Your task to perform on an android device: open app "eBay: The shopping marketplace" (install if not already installed) Image 0: 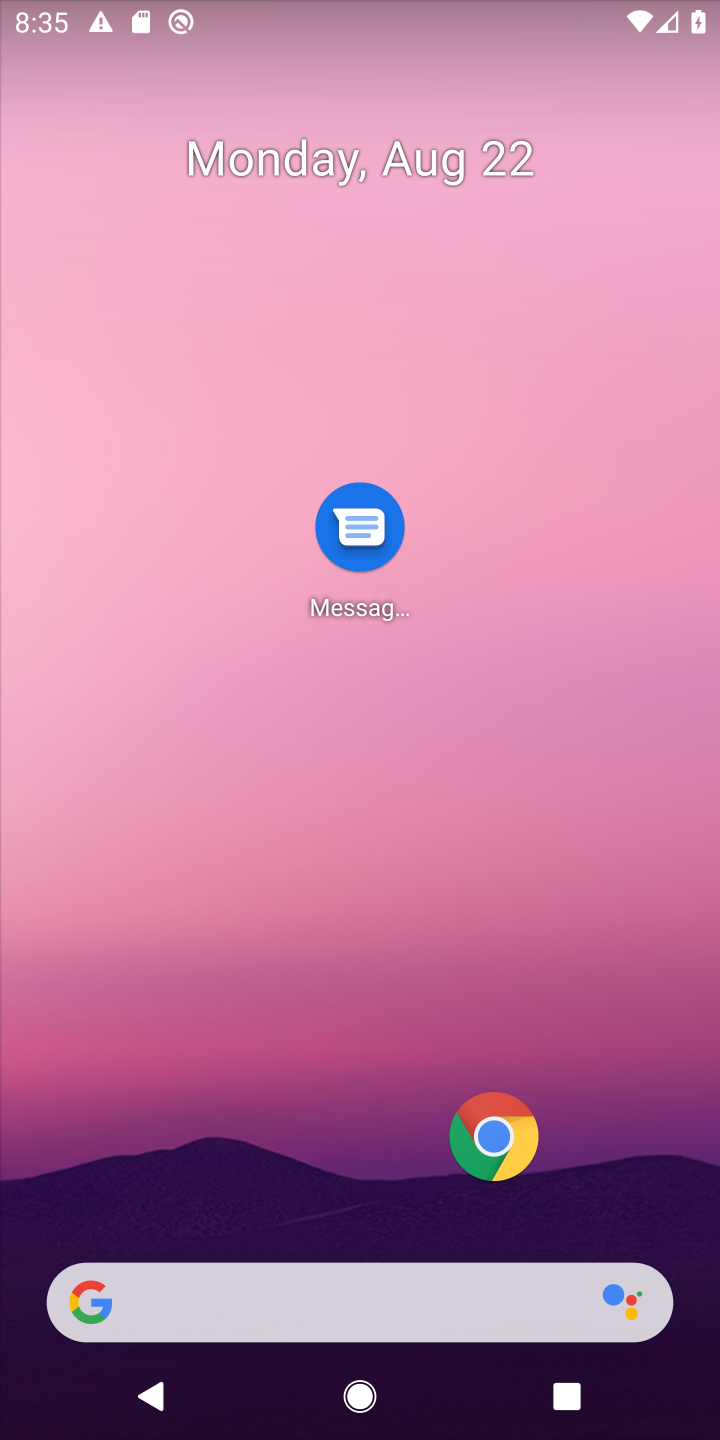
Step 0: drag from (380, 1147) to (365, 348)
Your task to perform on an android device: open app "eBay: The shopping marketplace" (install if not already installed) Image 1: 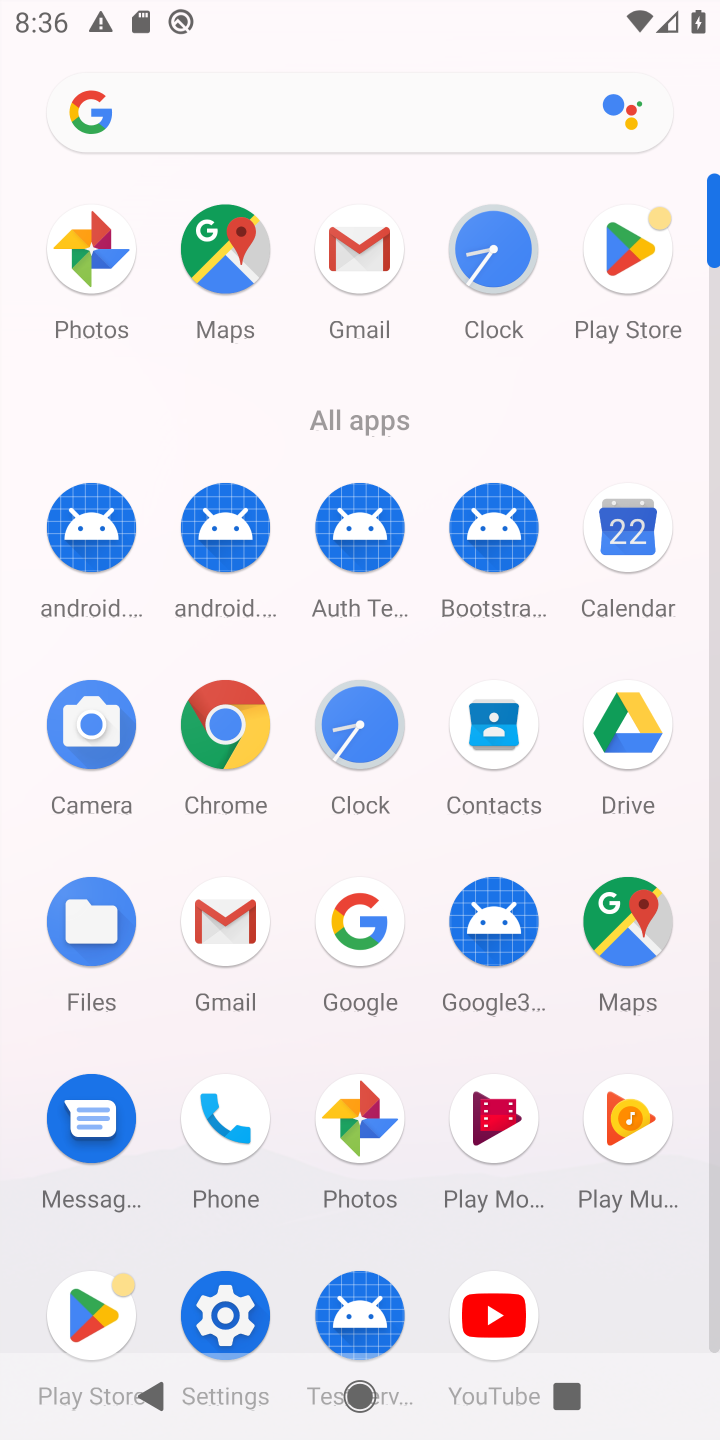
Step 1: click (618, 241)
Your task to perform on an android device: open app "eBay: The shopping marketplace" (install if not already installed) Image 2: 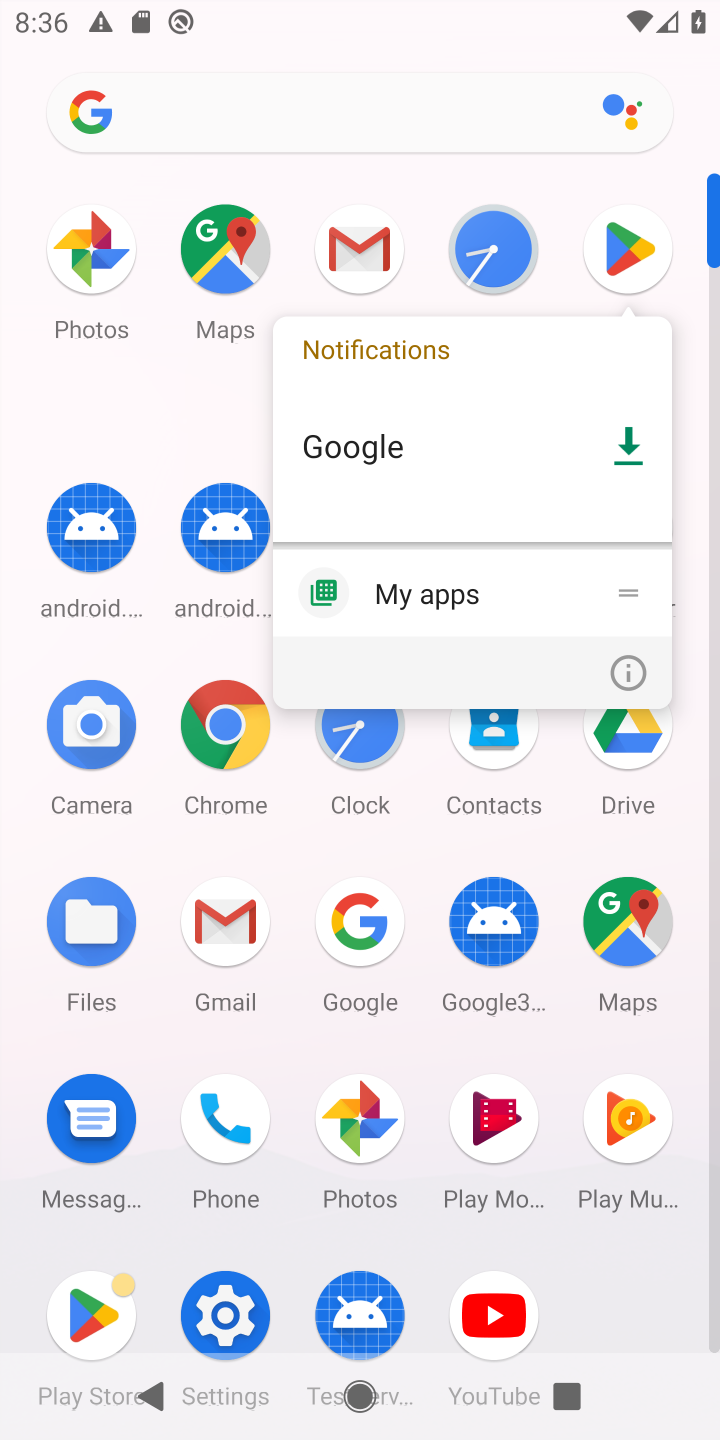
Step 2: click (618, 241)
Your task to perform on an android device: open app "eBay: The shopping marketplace" (install if not already installed) Image 3: 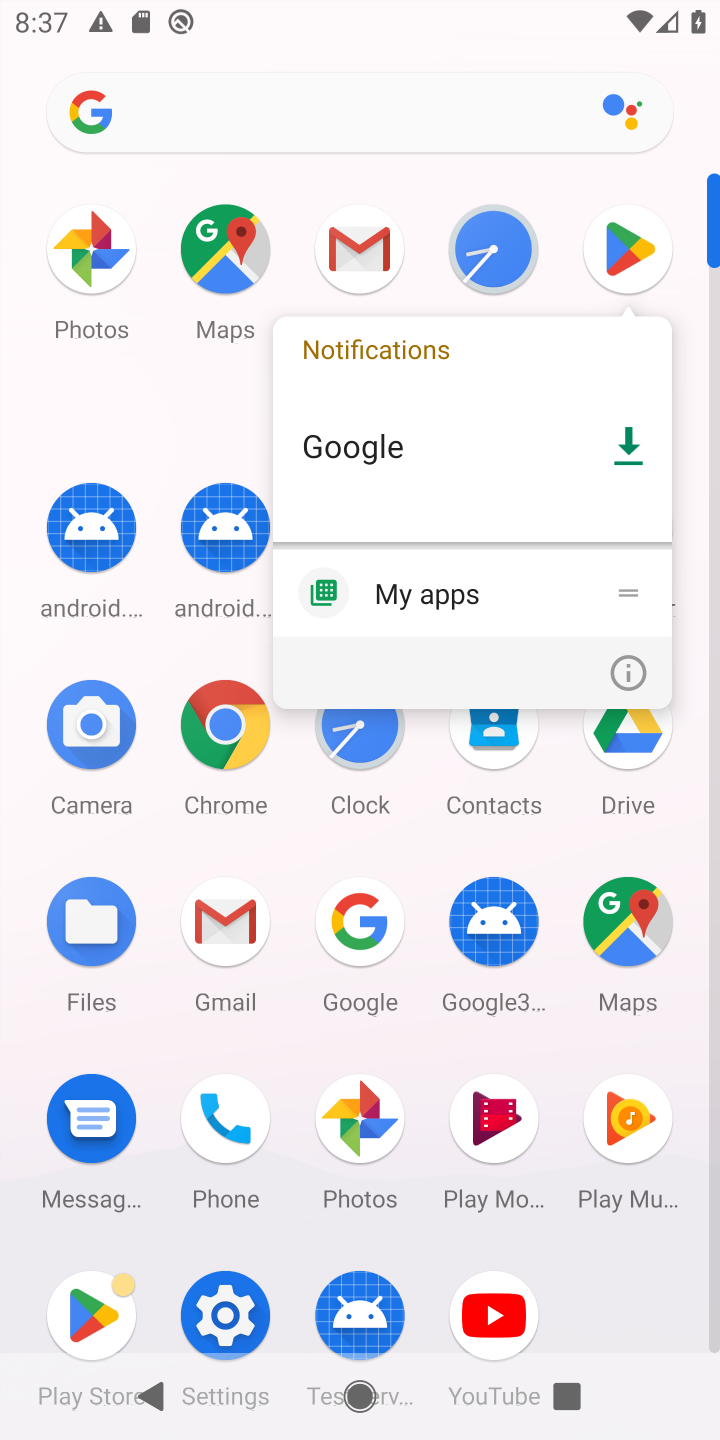
Step 3: click (106, 1321)
Your task to perform on an android device: open app "eBay: The shopping marketplace" (install if not already installed) Image 4: 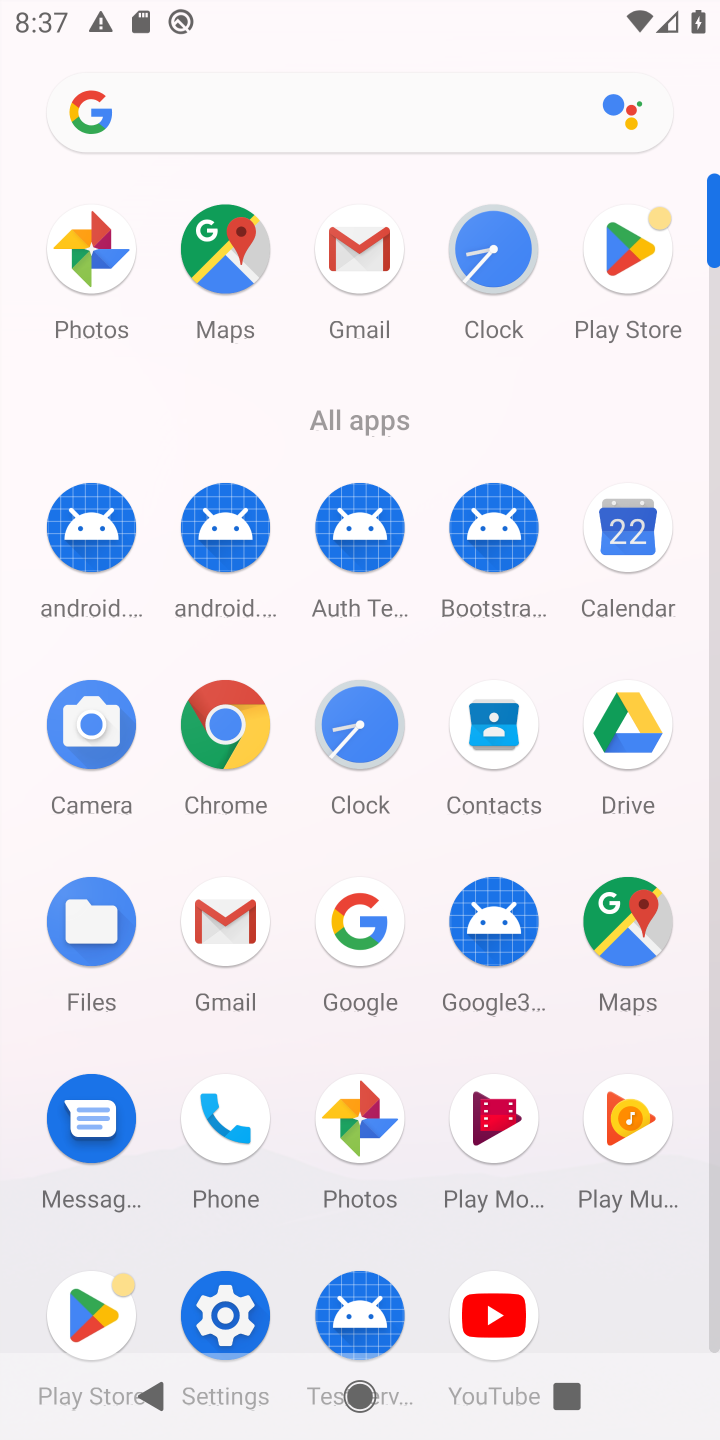
Step 4: click (622, 247)
Your task to perform on an android device: open app "eBay: The shopping marketplace" (install if not already installed) Image 5: 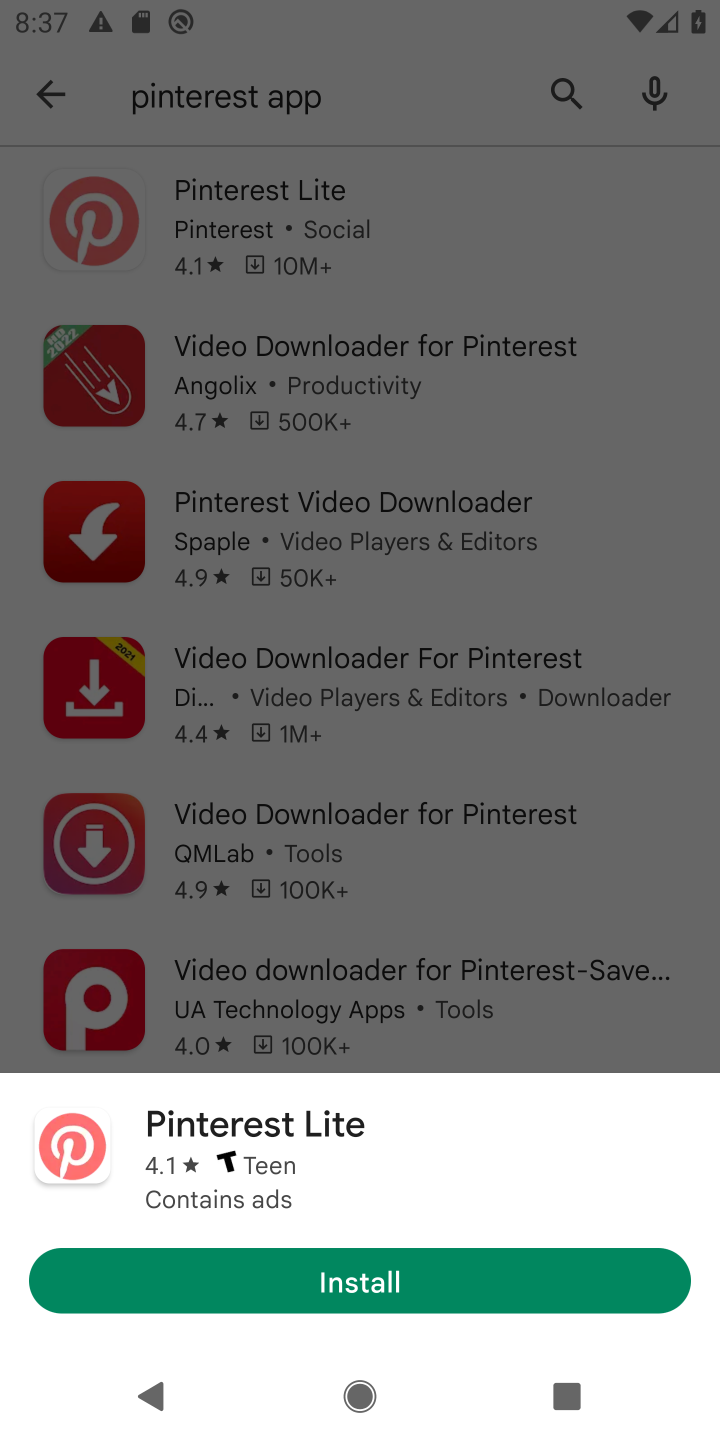
Step 5: click (82, 118)
Your task to perform on an android device: open app "eBay: The shopping marketplace" (install if not already installed) Image 6: 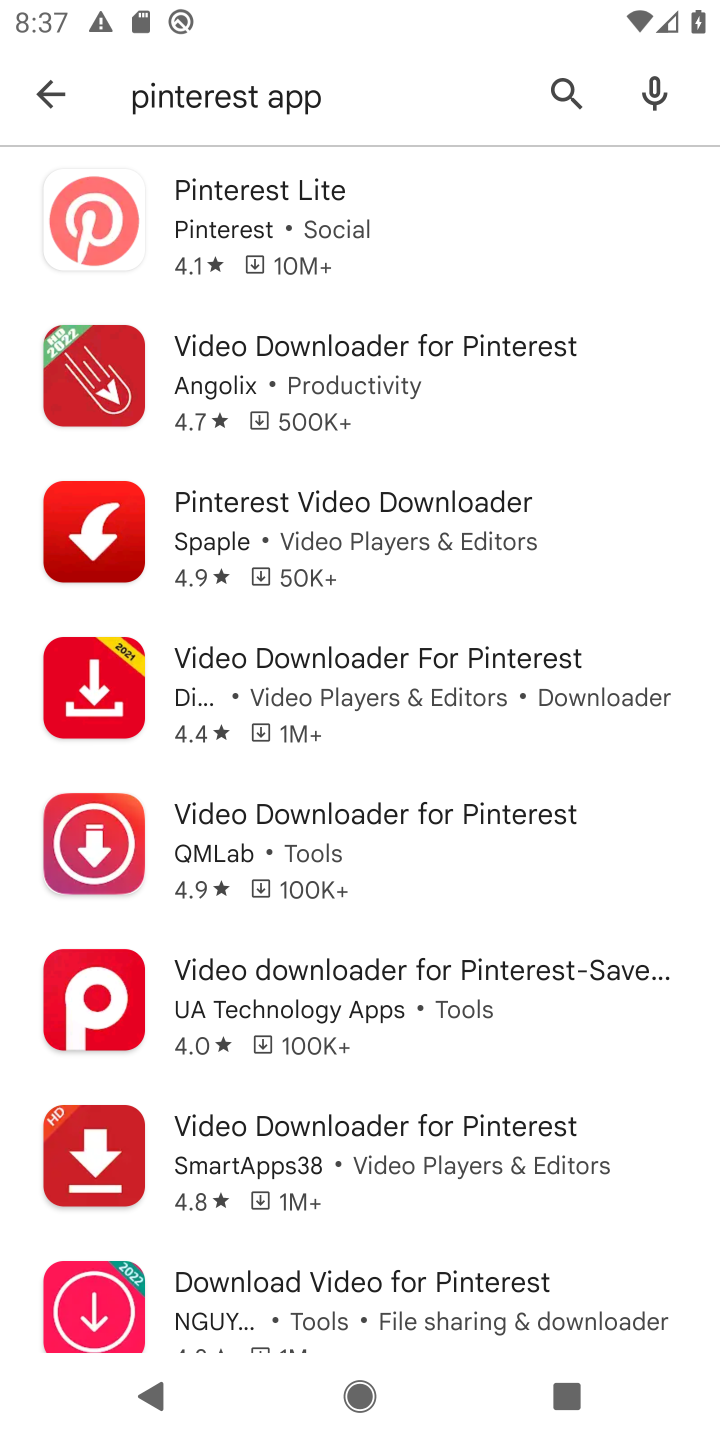
Step 6: click (56, 95)
Your task to perform on an android device: open app "eBay: The shopping marketplace" (install if not already installed) Image 7: 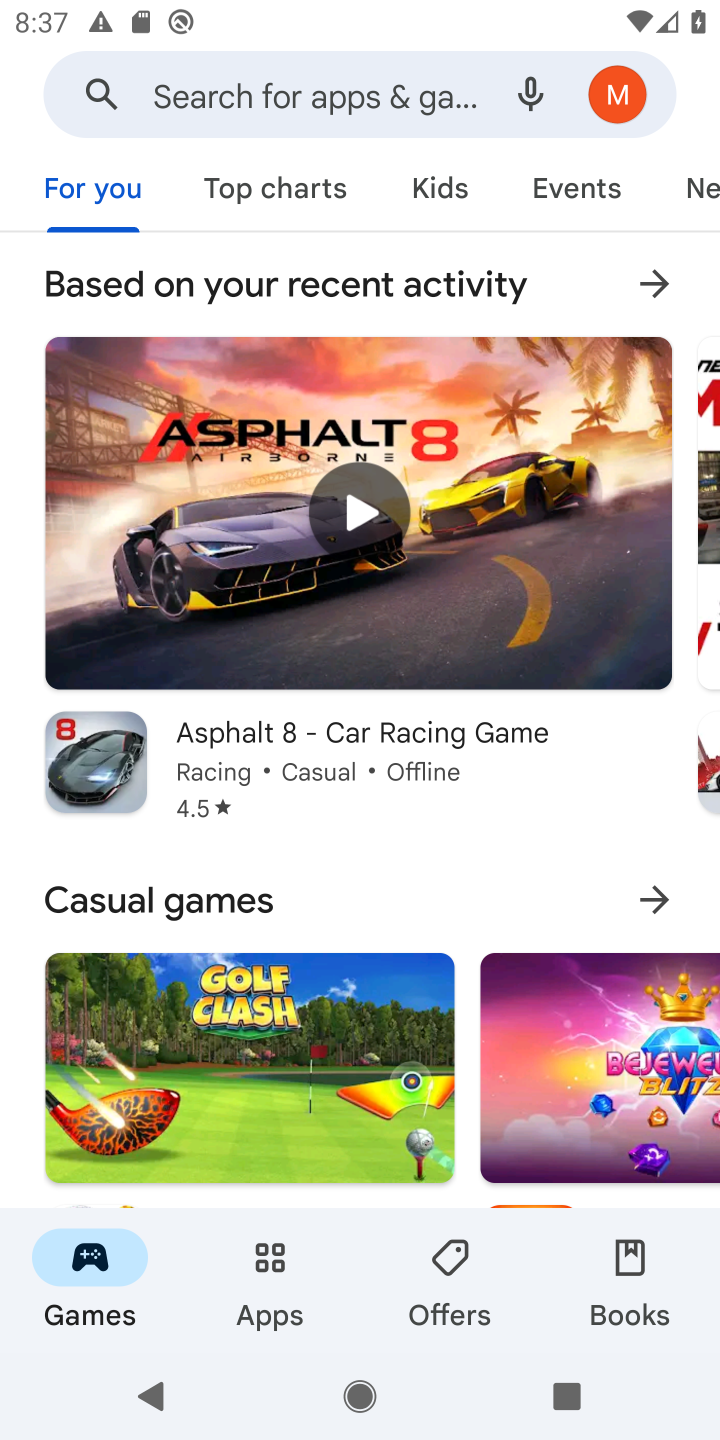
Step 7: click (214, 62)
Your task to perform on an android device: open app "eBay: The shopping marketplace" (install if not already installed) Image 8: 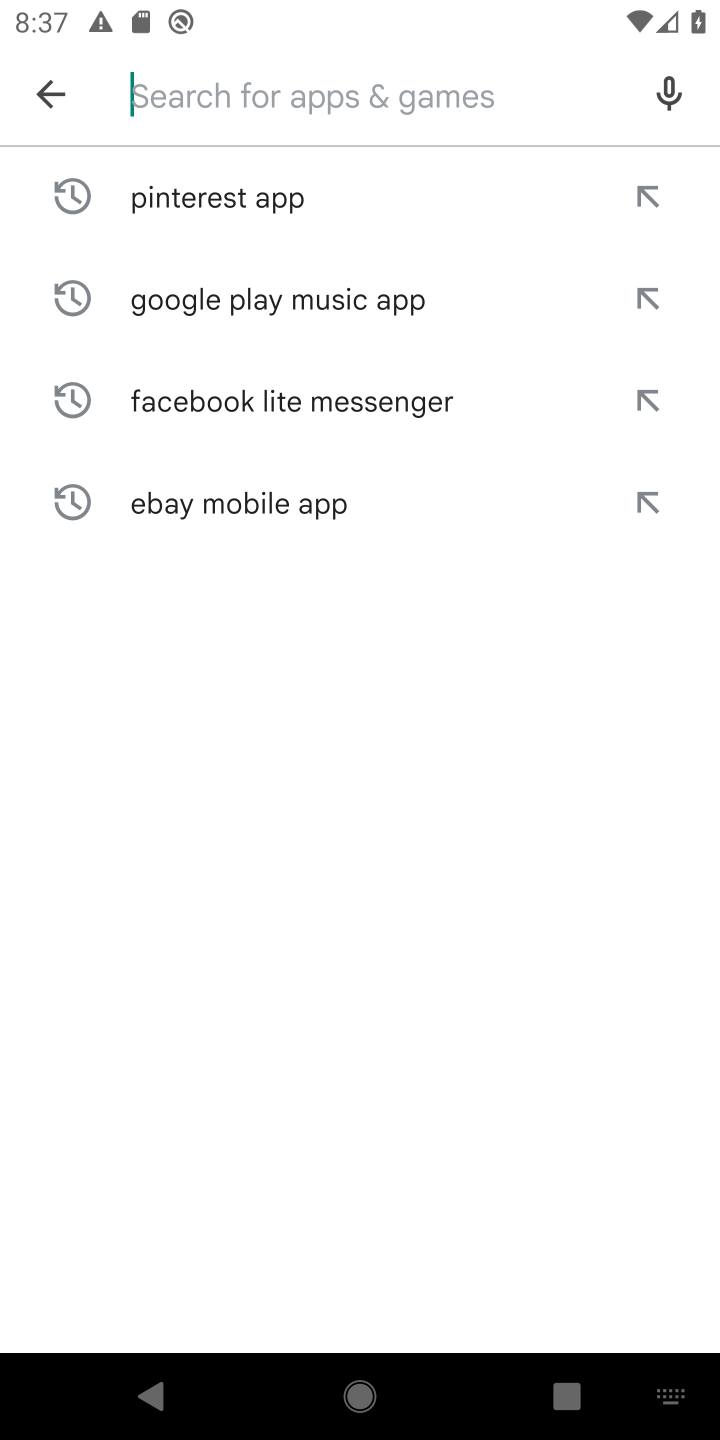
Step 8: type "ebay "
Your task to perform on an android device: open app "eBay: The shopping marketplace" (install if not already installed) Image 9: 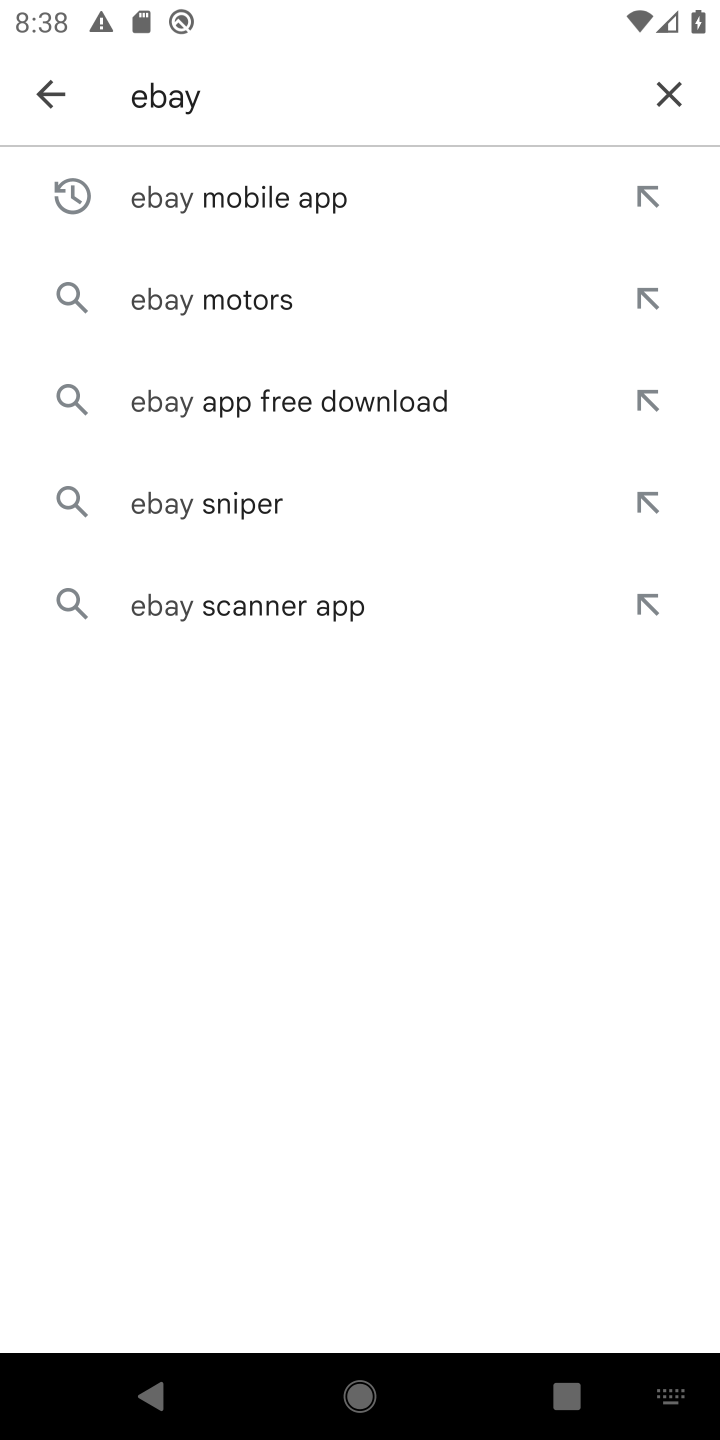
Step 9: click (357, 185)
Your task to perform on an android device: open app "eBay: The shopping marketplace" (install if not already installed) Image 10: 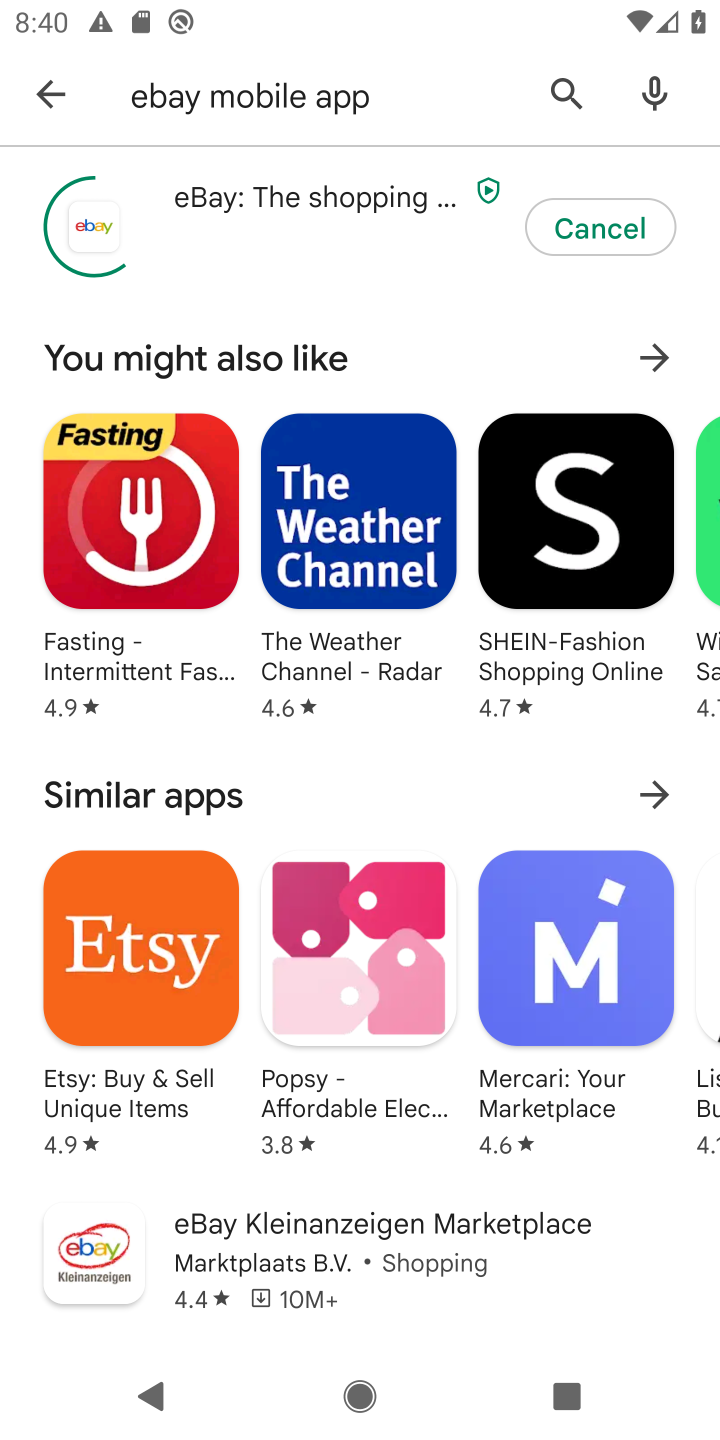
Step 10: task complete